Your task to perform on an android device: delete browsing data in the chrome app Image 0: 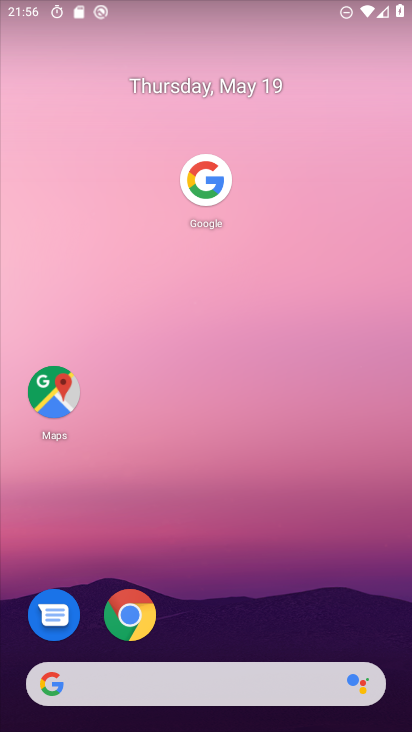
Step 0: drag from (249, 606) to (229, 99)
Your task to perform on an android device: delete browsing data in the chrome app Image 1: 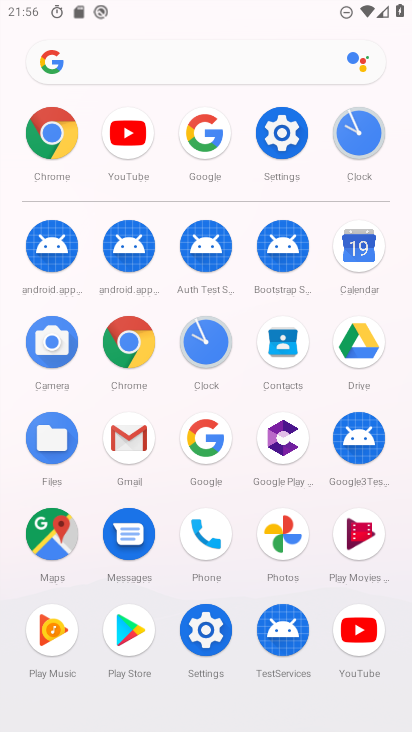
Step 1: click (53, 132)
Your task to perform on an android device: delete browsing data in the chrome app Image 2: 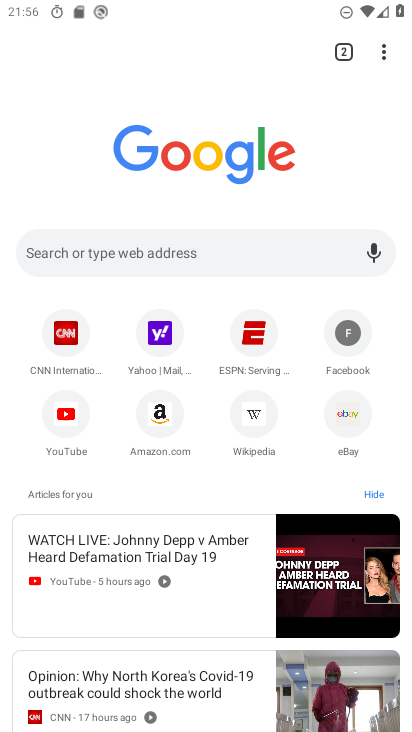
Step 2: click (378, 54)
Your task to perform on an android device: delete browsing data in the chrome app Image 3: 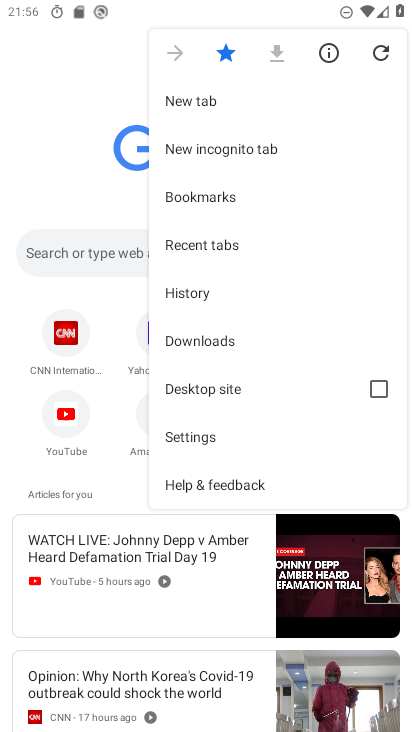
Step 3: click (206, 299)
Your task to perform on an android device: delete browsing data in the chrome app Image 4: 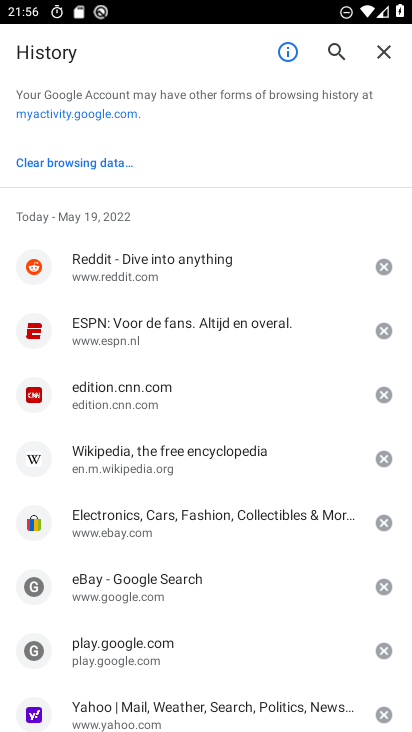
Step 4: click (112, 163)
Your task to perform on an android device: delete browsing data in the chrome app Image 5: 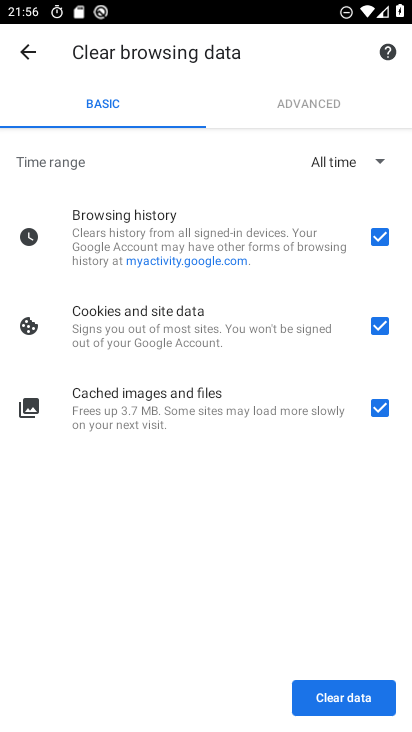
Step 5: click (376, 325)
Your task to perform on an android device: delete browsing data in the chrome app Image 6: 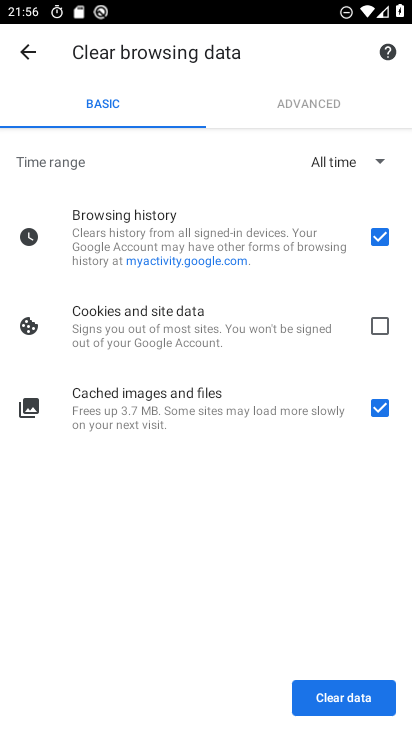
Step 6: click (386, 410)
Your task to perform on an android device: delete browsing data in the chrome app Image 7: 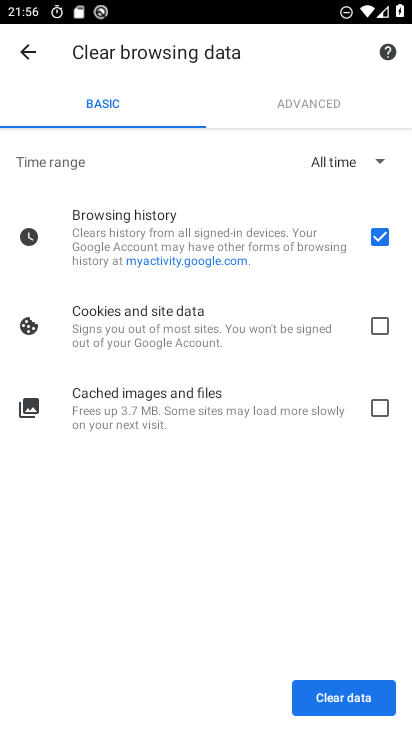
Step 7: click (335, 698)
Your task to perform on an android device: delete browsing data in the chrome app Image 8: 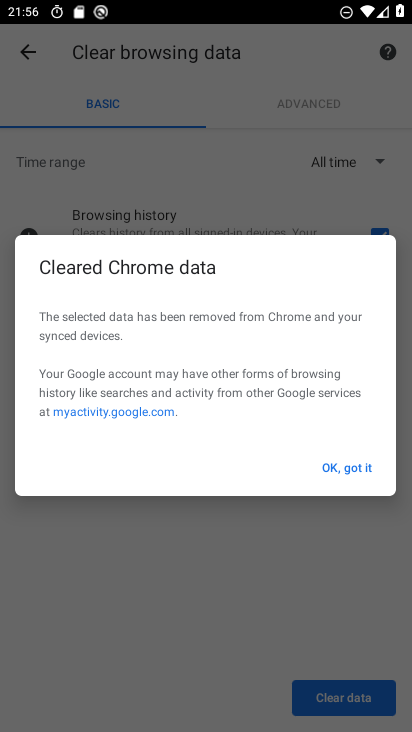
Step 8: click (336, 480)
Your task to perform on an android device: delete browsing data in the chrome app Image 9: 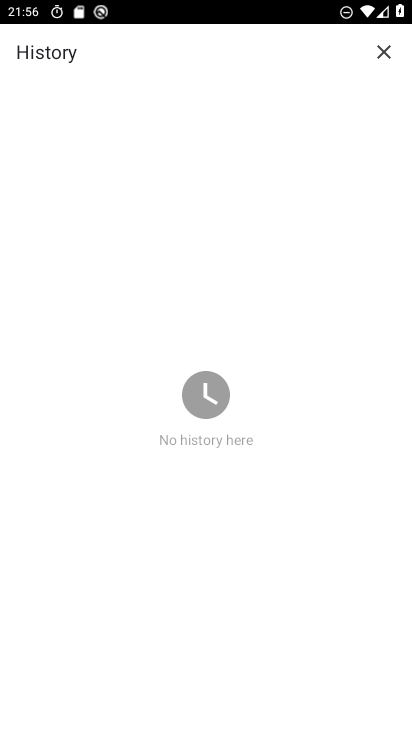
Step 9: task complete